Your task to perform on an android device: toggle sleep mode Image 0: 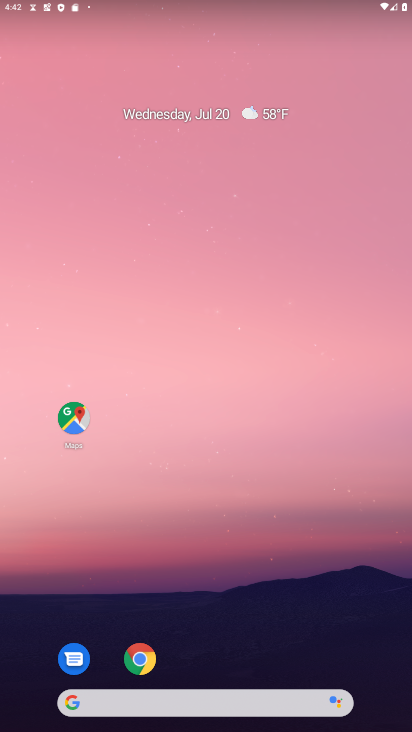
Step 0: drag from (273, 701) to (276, 0)
Your task to perform on an android device: toggle sleep mode Image 1: 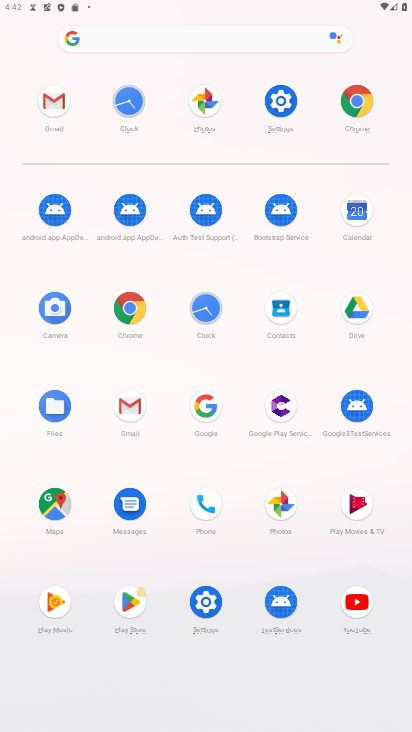
Step 1: click (284, 101)
Your task to perform on an android device: toggle sleep mode Image 2: 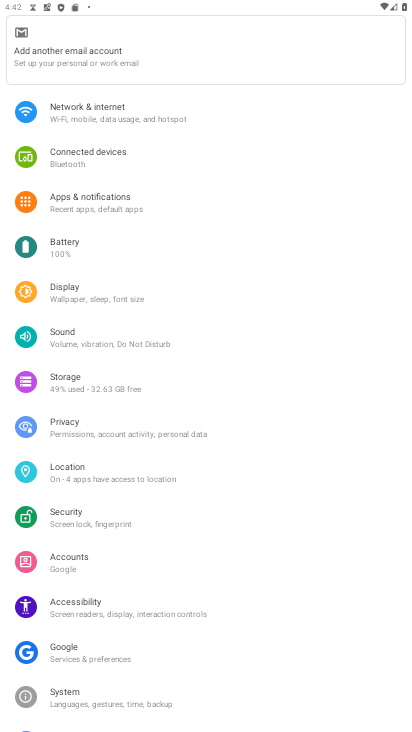
Step 2: click (117, 294)
Your task to perform on an android device: toggle sleep mode Image 3: 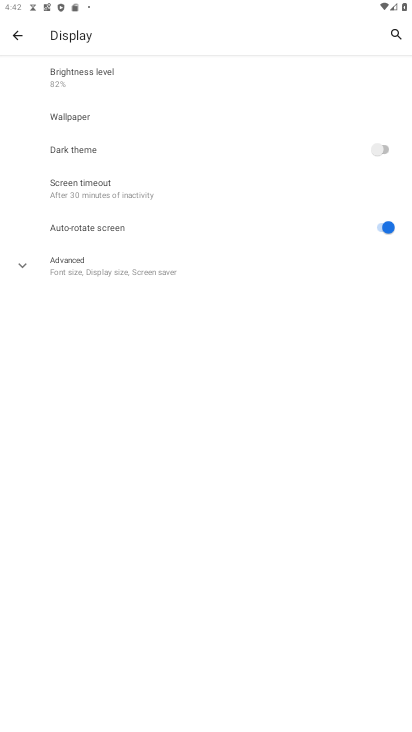
Step 3: task complete